Your task to perform on an android device: allow cookies in the chrome app Image 0: 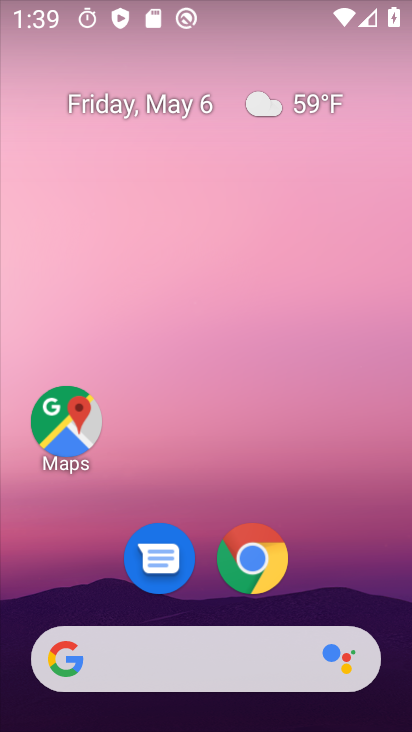
Step 0: click (246, 550)
Your task to perform on an android device: allow cookies in the chrome app Image 1: 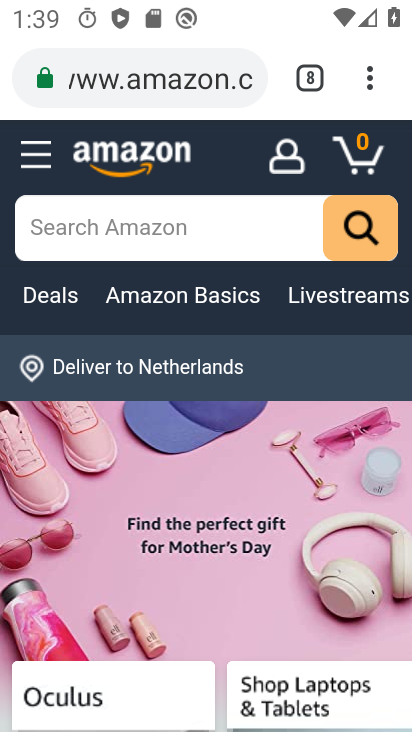
Step 1: click (371, 81)
Your task to perform on an android device: allow cookies in the chrome app Image 2: 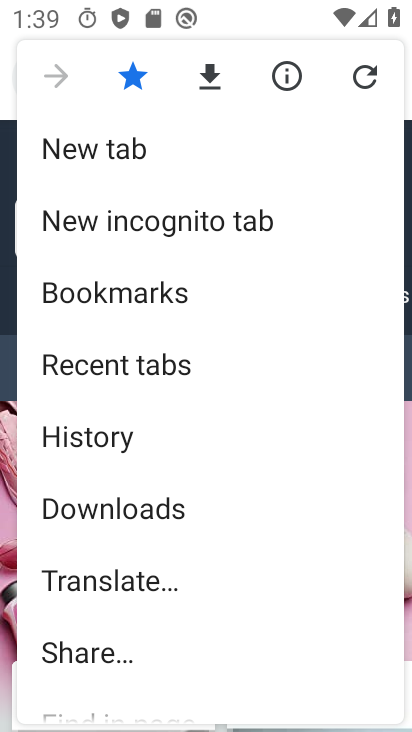
Step 2: drag from (121, 664) to (115, 194)
Your task to perform on an android device: allow cookies in the chrome app Image 3: 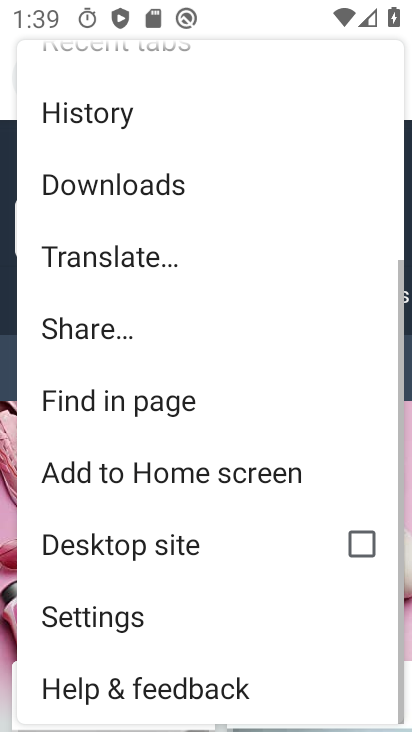
Step 3: click (115, 615)
Your task to perform on an android device: allow cookies in the chrome app Image 4: 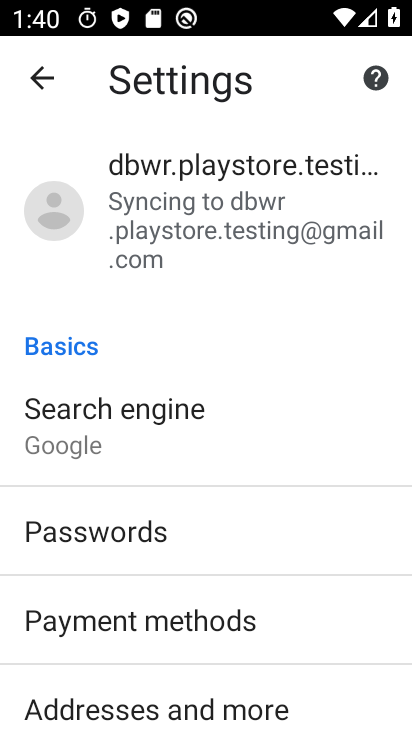
Step 4: drag from (128, 633) to (113, 291)
Your task to perform on an android device: allow cookies in the chrome app Image 5: 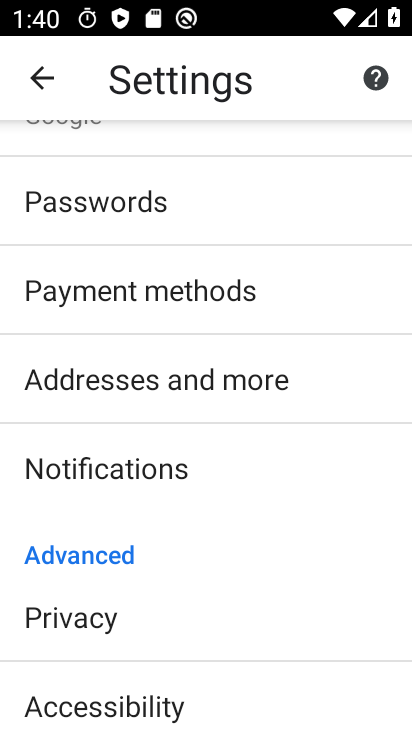
Step 5: drag from (174, 679) to (197, 332)
Your task to perform on an android device: allow cookies in the chrome app Image 6: 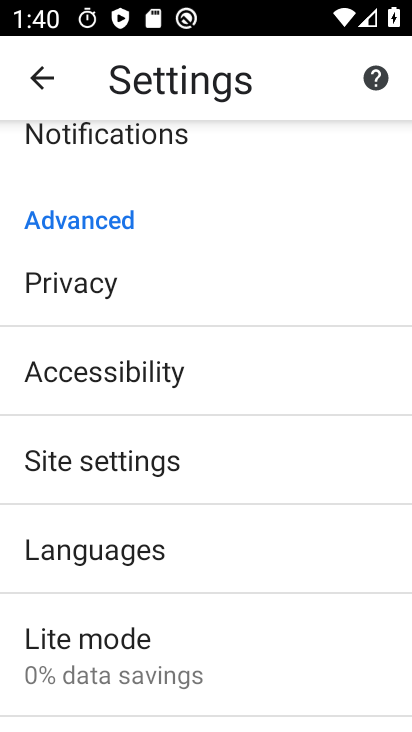
Step 6: click (143, 463)
Your task to perform on an android device: allow cookies in the chrome app Image 7: 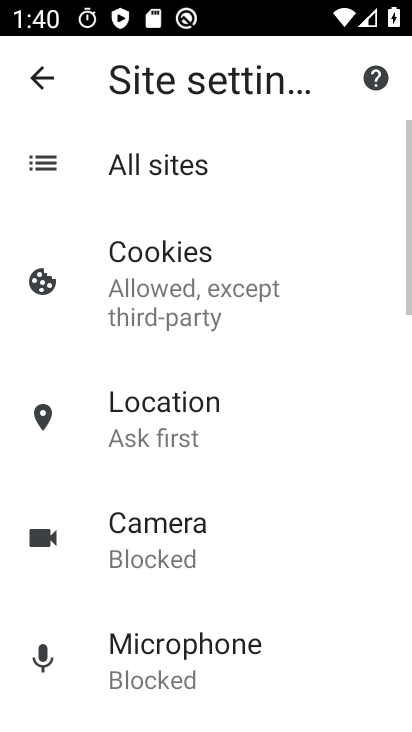
Step 7: click (183, 276)
Your task to perform on an android device: allow cookies in the chrome app Image 8: 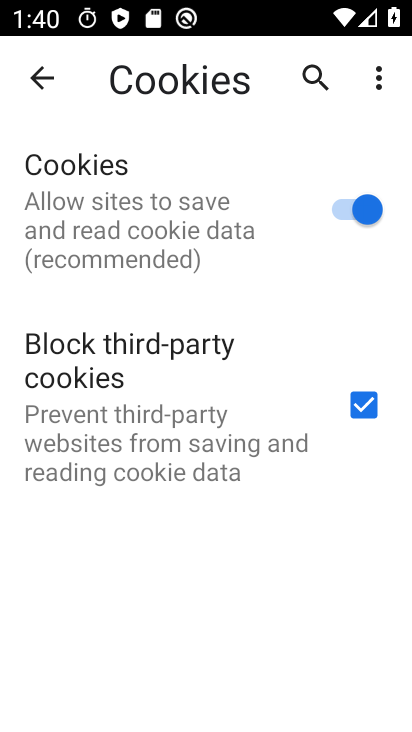
Step 8: task complete